Your task to perform on an android device: empty trash in the gmail app Image 0: 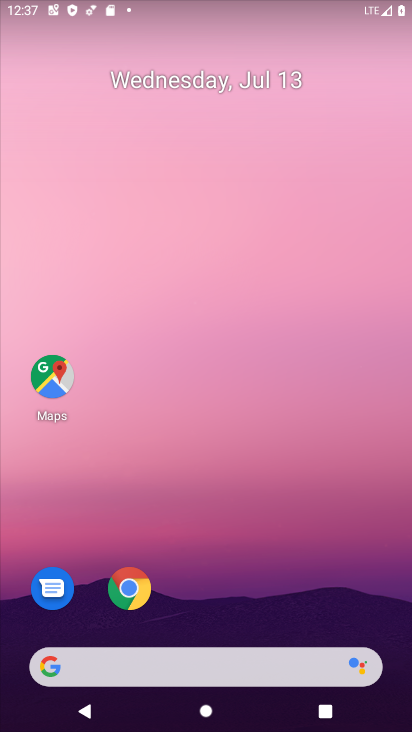
Step 0: drag from (390, 692) to (333, 190)
Your task to perform on an android device: empty trash in the gmail app Image 1: 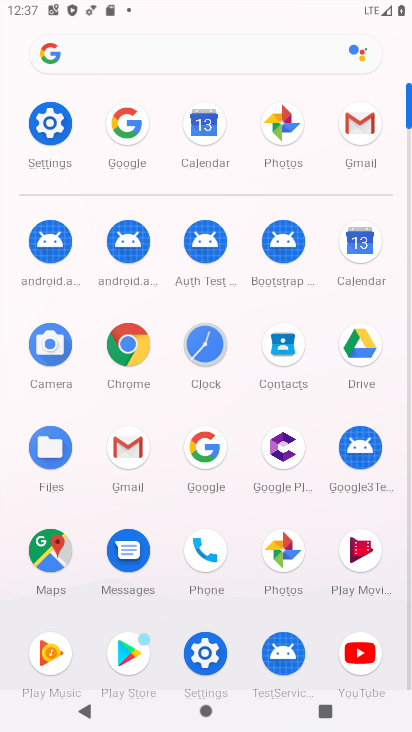
Step 1: click (128, 449)
Your task to perform on an android device: empty trash in the gmail app Image 2: 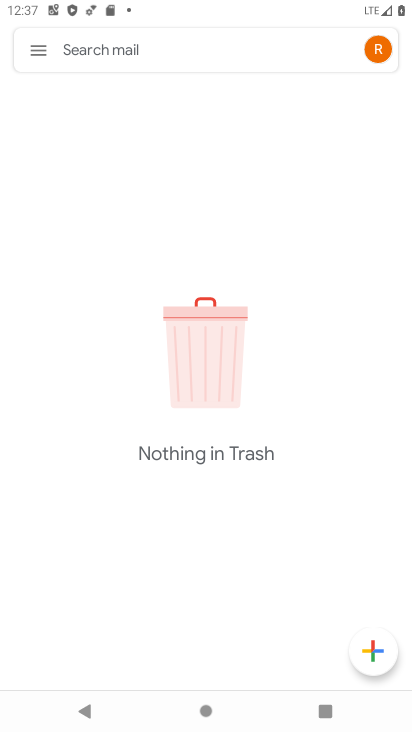
Step 2: click (42, 50)
Your task to perform on an android device: empty trash in the gmail app Image 3: 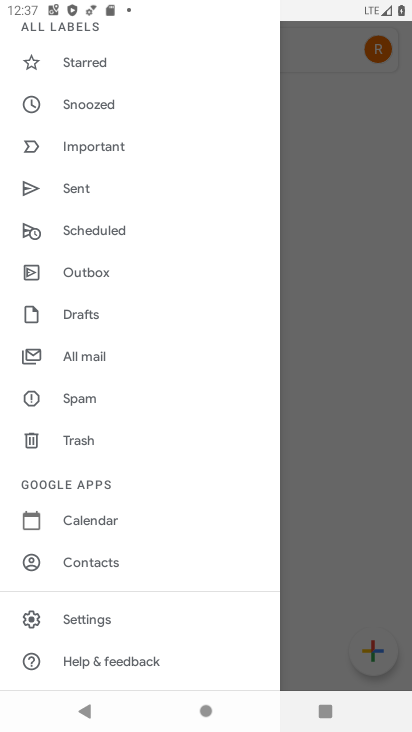
Step 3: click (67, 433)
Your task to perform on an android device: empty trash in the gmail app Image 4: 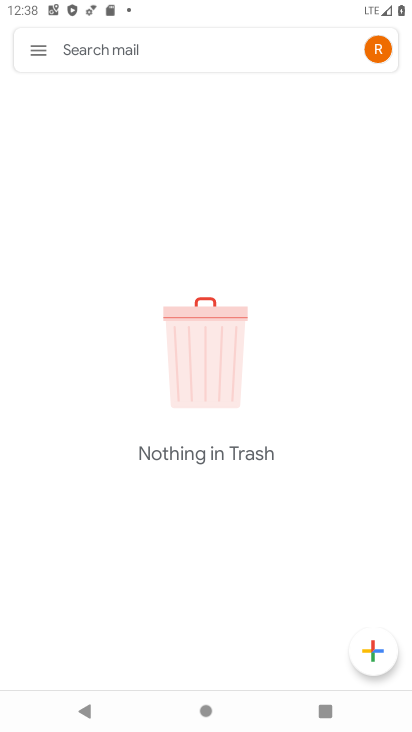
Step 4: task complete